Your task to perform on an android device: Open Google Image 0: 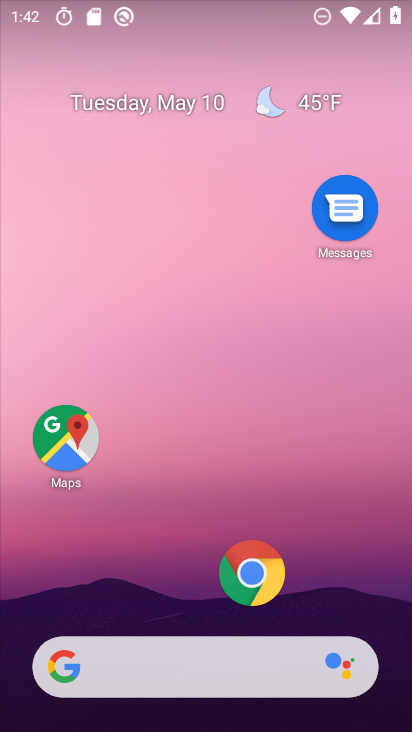
Step 0: drag from (211, 630) to (237, 251)
Your task to perform on an android device: Open Google Image 1: 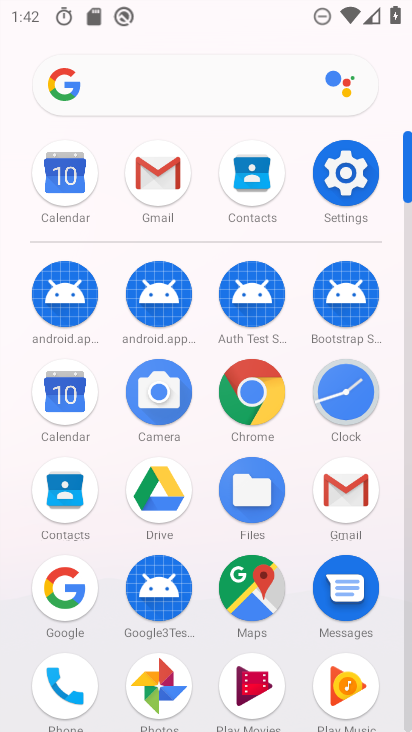
Step 1: click (50, 589)
Your task to perform on an android device: Open Google Image 2: 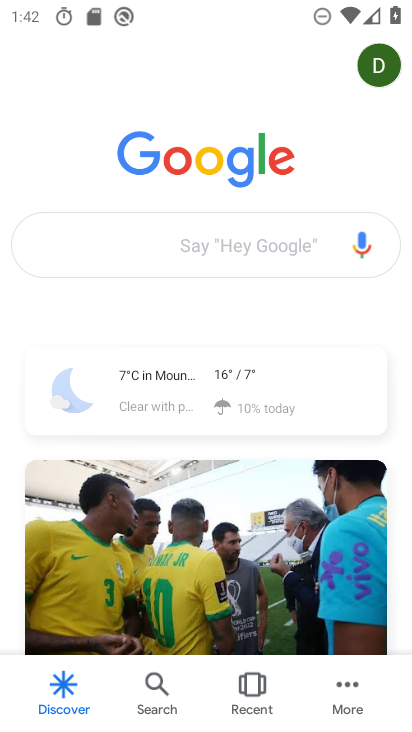
Step 2: task complete